Your task to perform on an android device: see creations saved in the google photos Image 0: 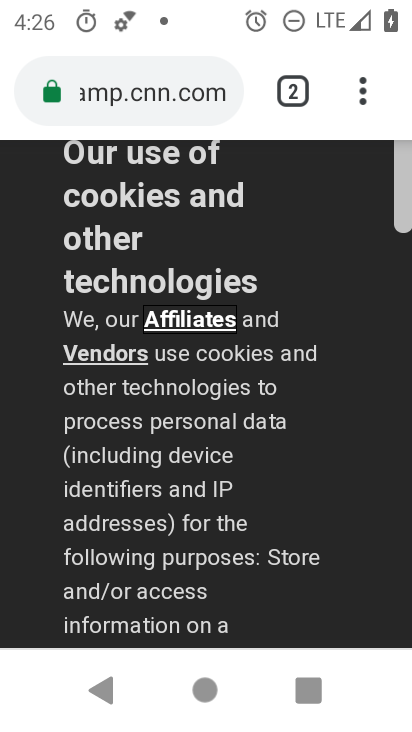
Step 0: press home button
Your task to perform on an android device: see creations saved in the google photos Image 1: 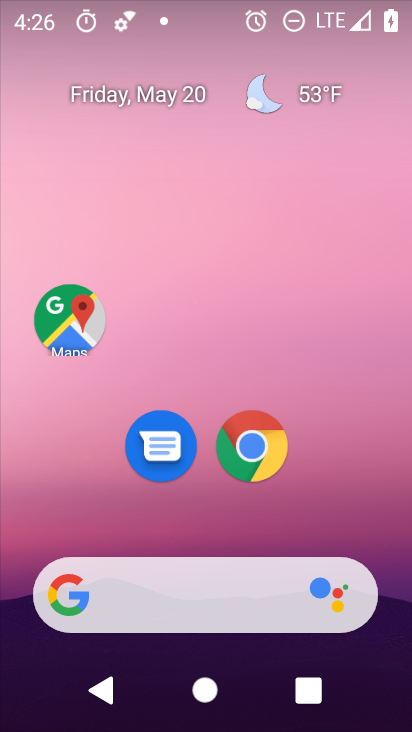
Step 1: drag from (382, 503) to (329, 730)
Your task to perform on an android device: see creations saved in the google photos Image 2: 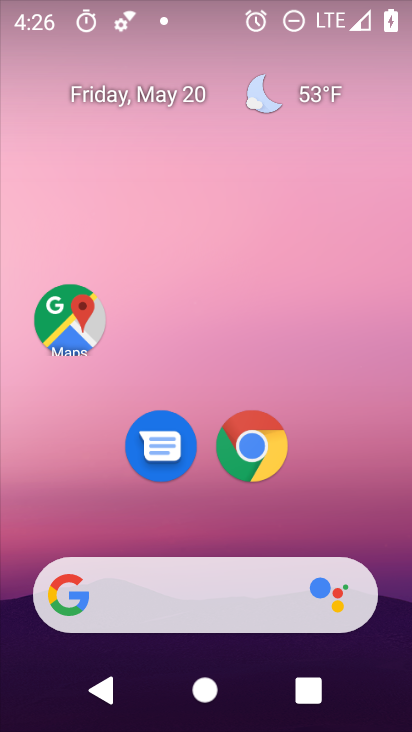
Step 2: drag from (342, 500) to (362, 33)
Your task to perform on an android device: see creations saved in the google photos Image 3: 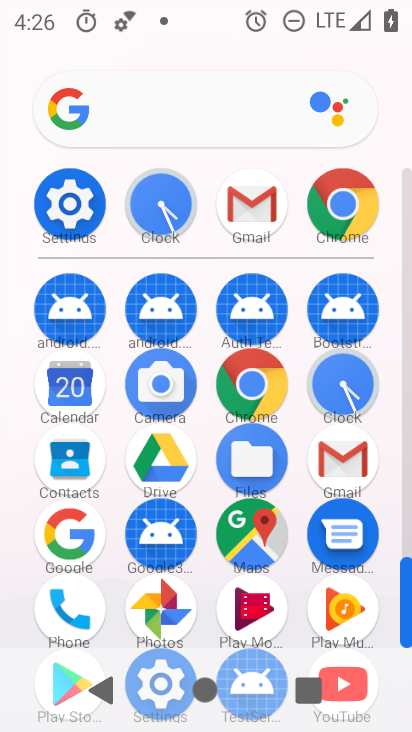
Step 3: click (150, 608)
Your task to perform on an android device: see creations saved in the google photos Image 4: 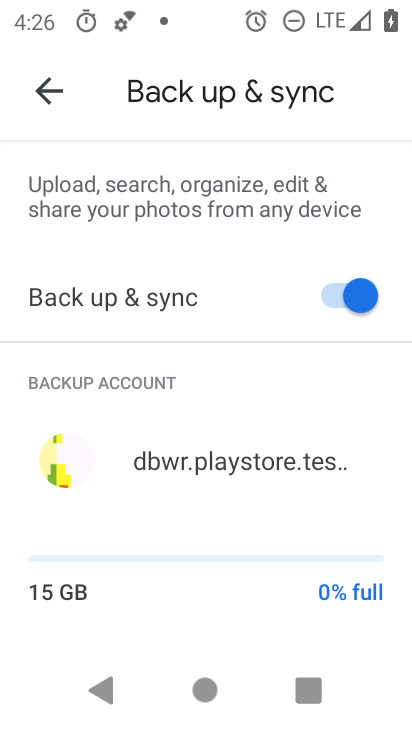
Step 4: click (52, 89)
Your task to perform on an android device: see creations saved in the google photos Image 5: 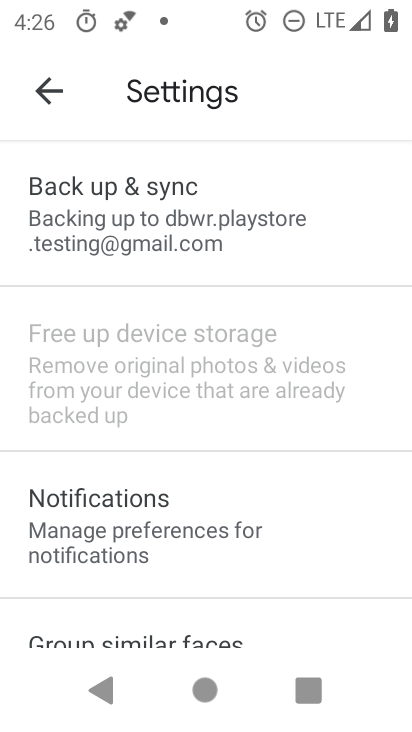
Step 5: click (60, 94)
Your task to perform on an android device: see creations saved in the google photos Image 6: 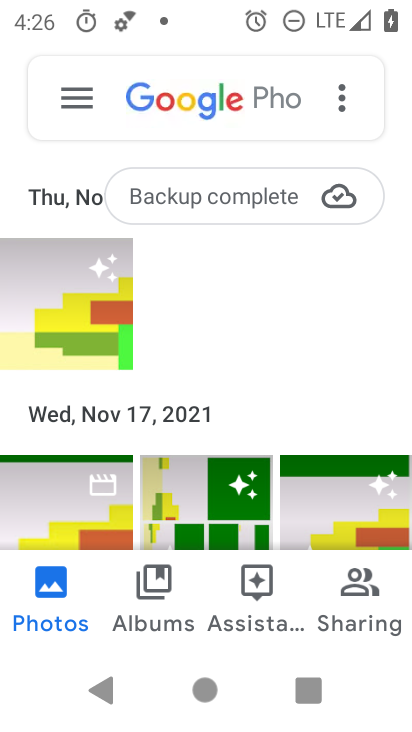
Step 6: click (141, 578)
Your task to perform on an android device: see creations saved in the google photos Image 7: 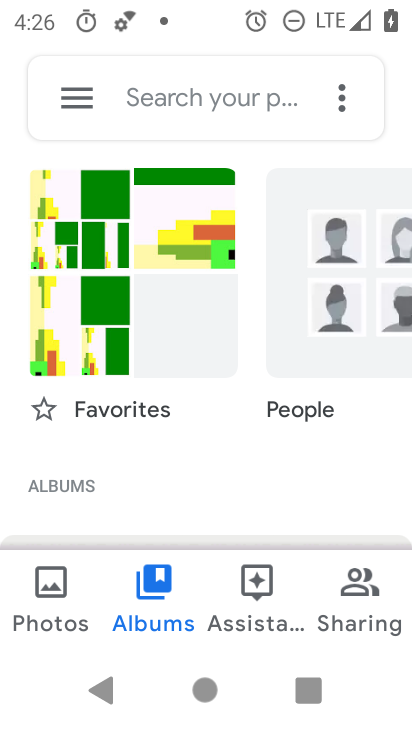
Step 7: task complete